Your task to perform on an android device: What's the weather going to be tomorrow? Image 0: 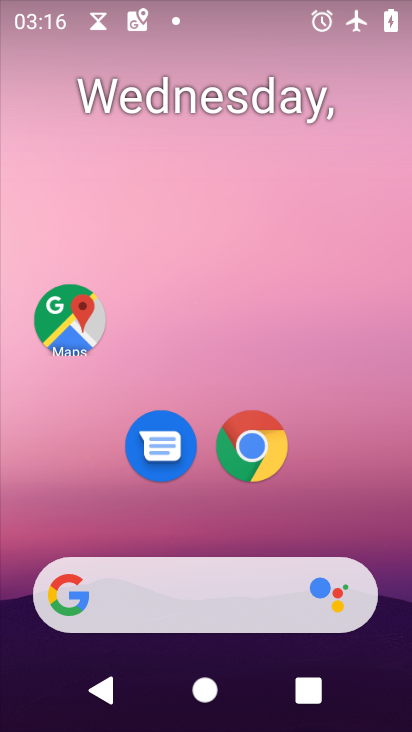
Step 0: drag from (198, 531) to (177, 134)
Your task to perform on an android device: What's the weather going to be tomorrow? Image 1: 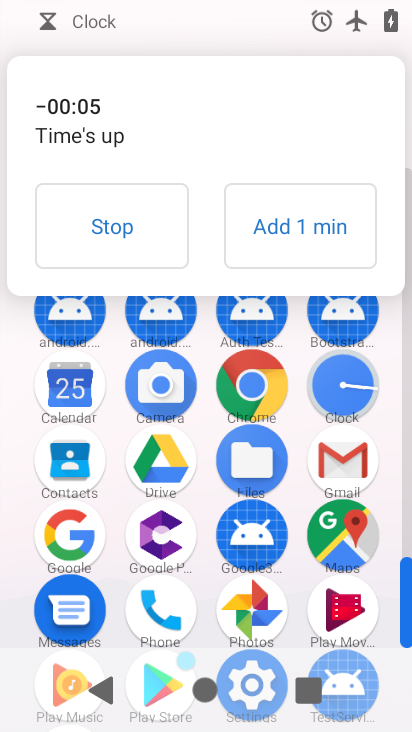
Step 1: click (145, 237)
Your task to perform on an android device: What's the weather going to be tomorrow? Image 2: 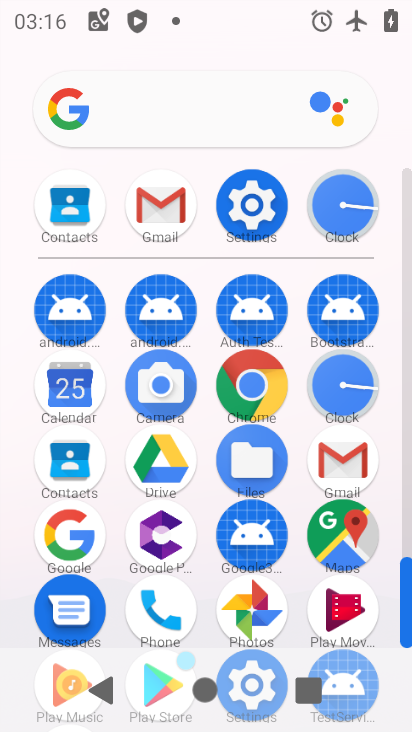
Step 2: click (77, 549)
Your task to perform on an android device: What's the weather going to be tomorrow? Image 3: 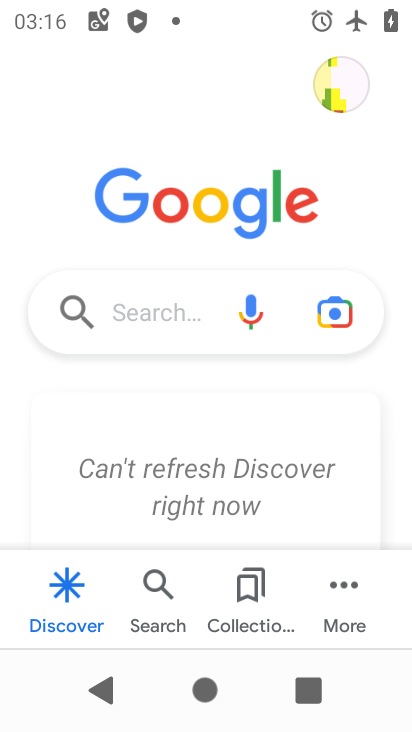
Step 3: click (164, 310)
Your task to perform on an android device: What's the weather going to be tomorrow? Image 4: 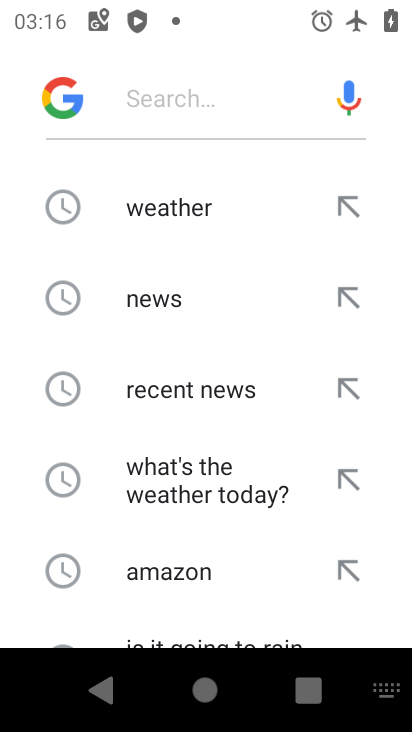
Step 4: click (163, 224)
Your task to perform on an android device: What's the weather going to be tomorrow? Image 5: 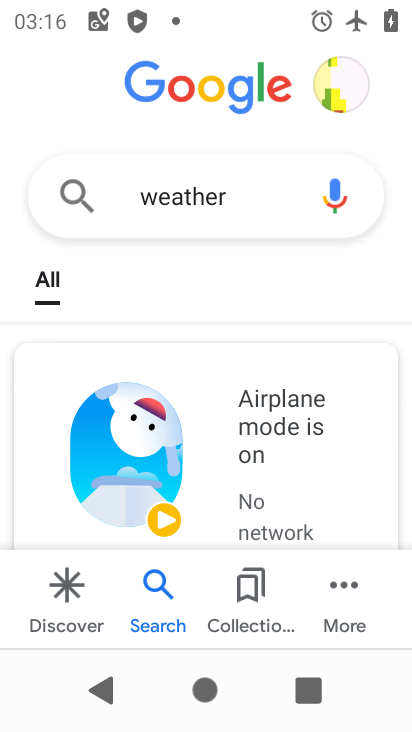
Step 5: task complete